Your task to perform on an android device: Go to network settings Image 0: 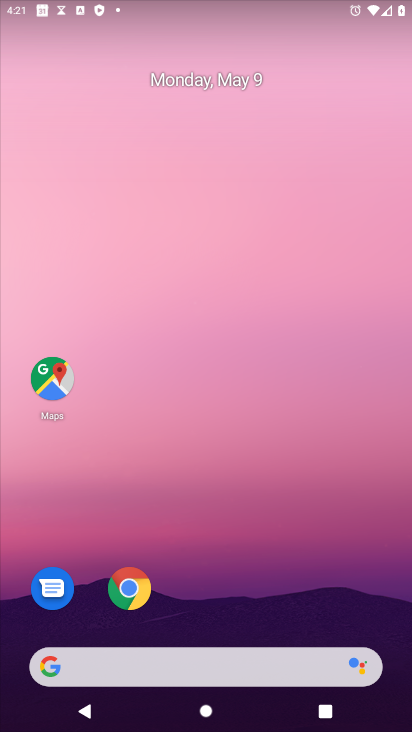
Step 0: drag from (277, 439) to (229, 82)
Your task to perform on an android device: Go to network settings Image 1: 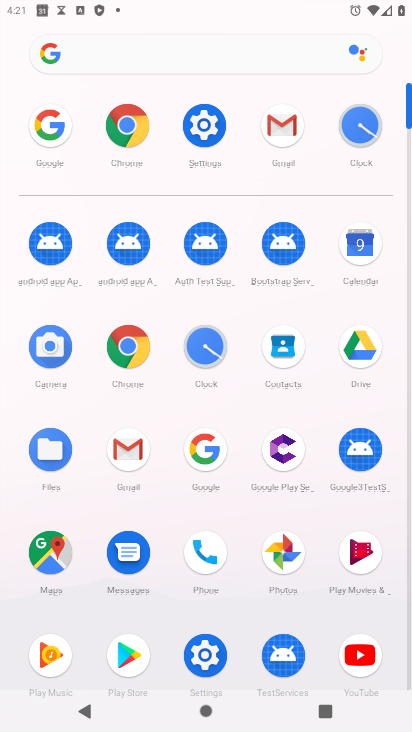
Step 1: click (212, 126)
Your task to perform on an android device: Go to network settings Image 2: 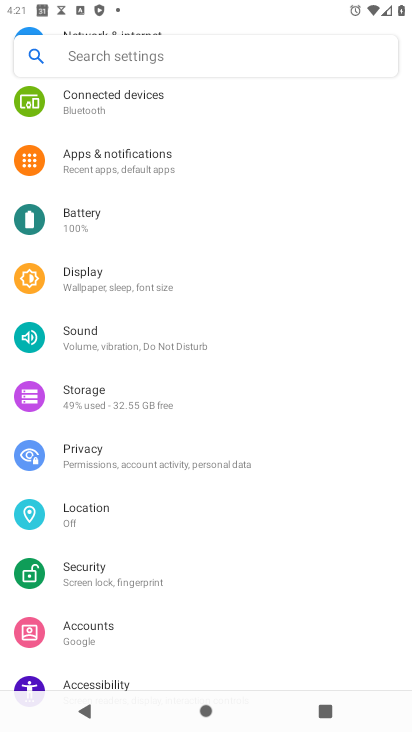
Step 2: drag from (205, 139) to (166, 568)
Your task to perform on an android device: Go to network settings Image 3: 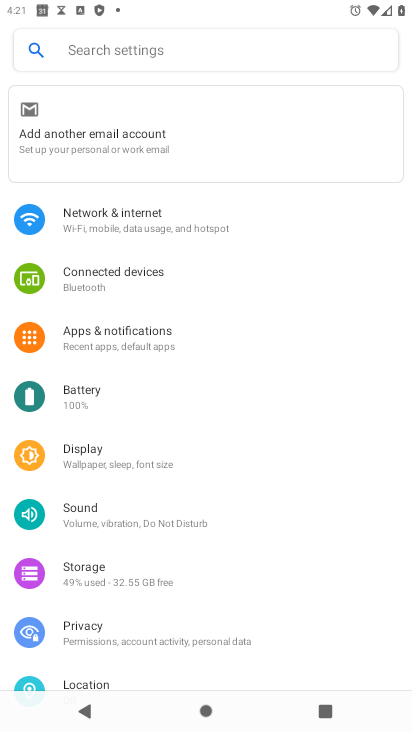
Step 3: click (138, 233)
Your task to perform on an android device: Go to network settings Image 4: 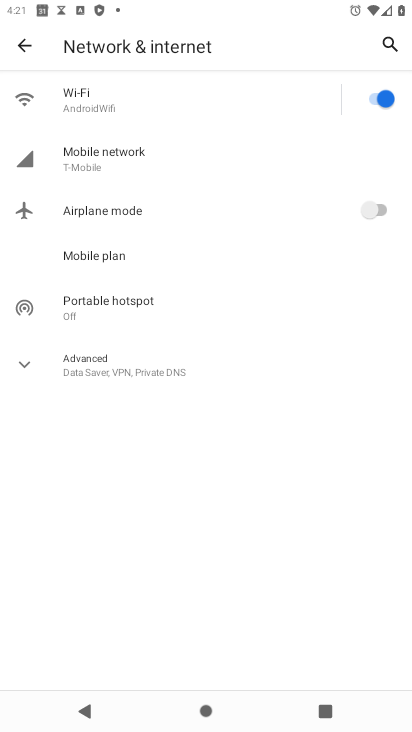
Step 4: click (168, 165)
Your task to perform on an android device: Go to network settings Image 5: 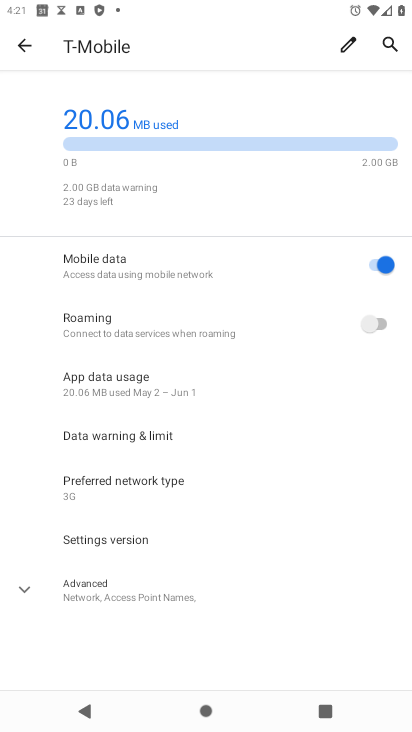
Step 5: click (127, 584)
Your task to perform on an android device: Go to network settings Image 6: 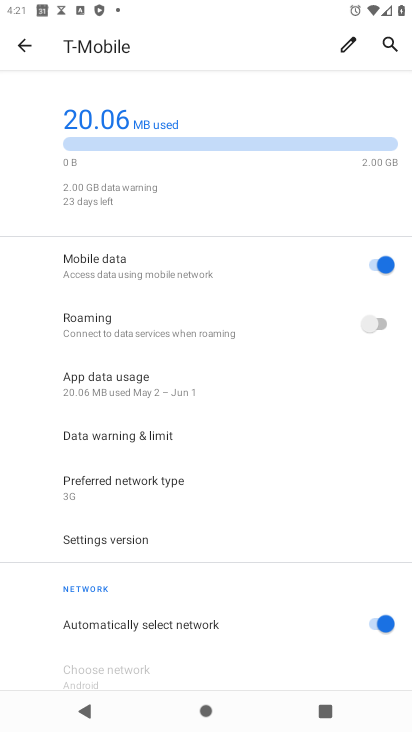
Step 6: task complete